Your task to perform on an android device: Go to wifi settings Image 0: 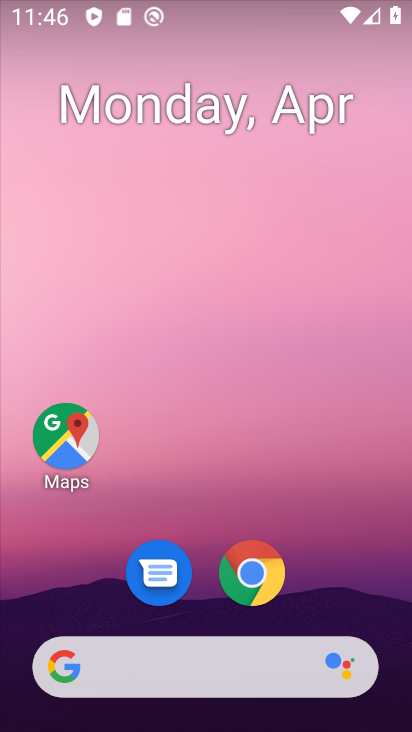
Step 0: drag from (203, 615) to (173, 11)
Your task to perform on an android device: Go to wifi settings Image 1: 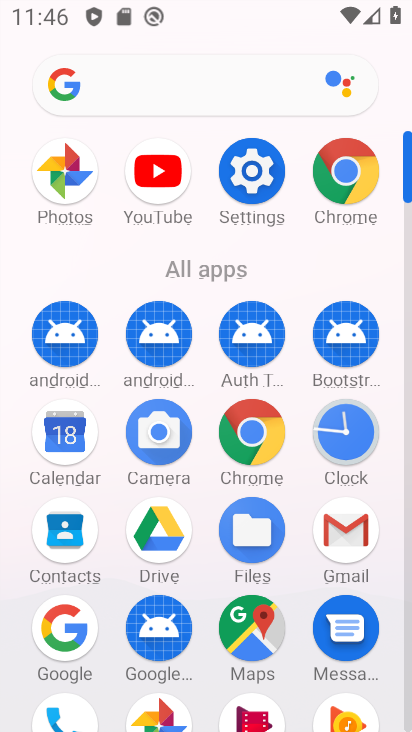
Step 1: click (237, 159)
Your task to perform on an android device: Go to wifi settings Image 2: 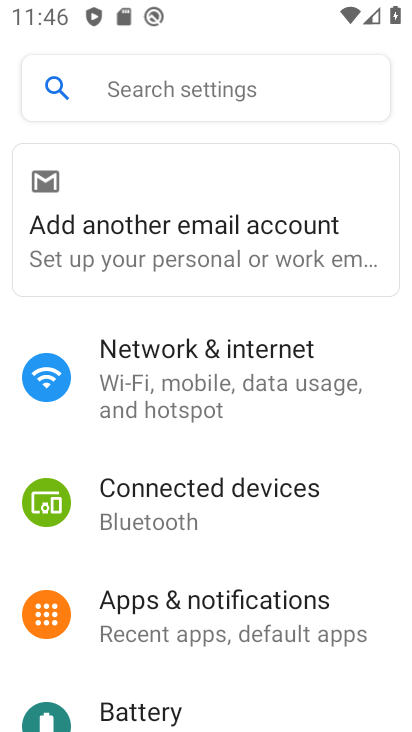
Step 2: click (223, 356)
Your task to perform on an android device: Go to wifi settings Image 3: 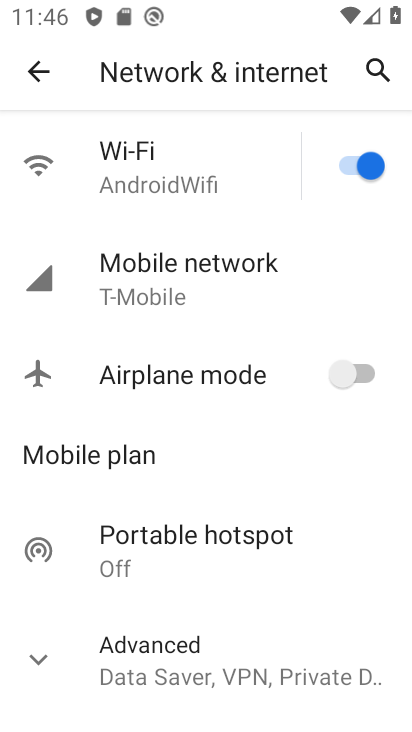
Step 3: click (230, 186)
Your task to perform on an android device: Go to wifi settings Image 4: 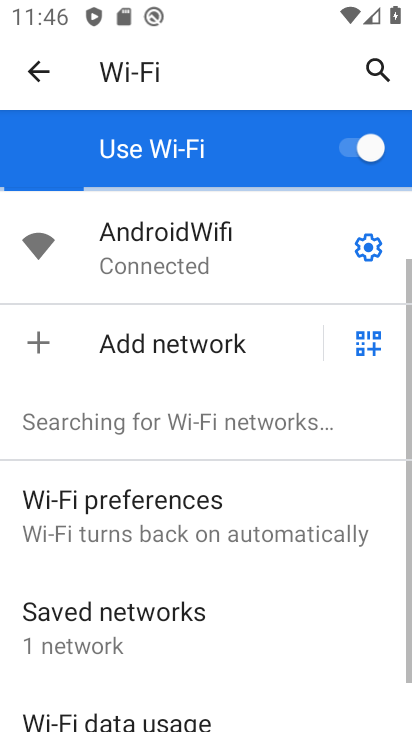
Step 4: task complete